Your task to perform on an android device: Go to CNN.com Image 0: 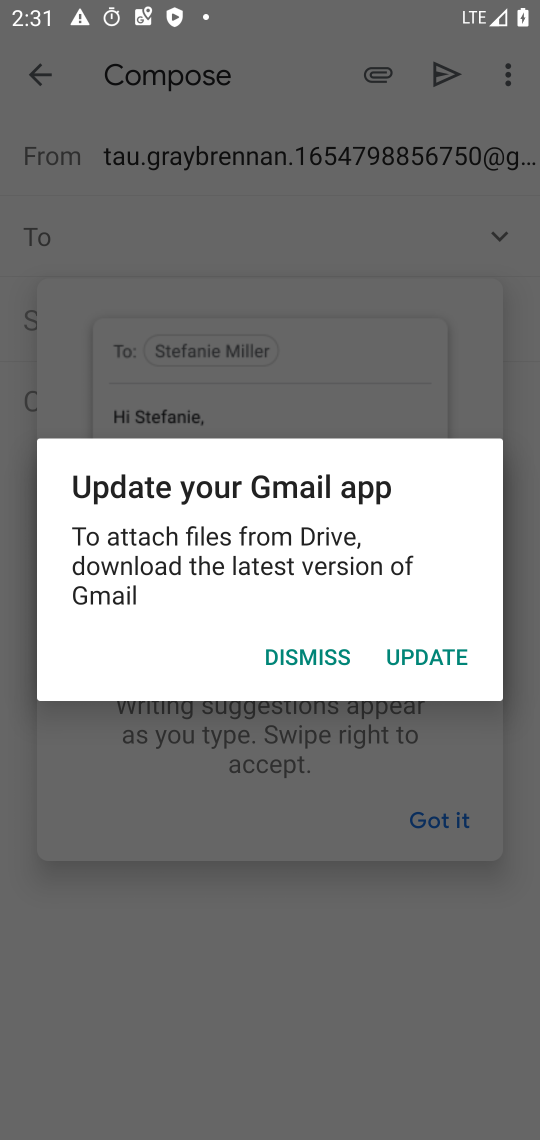
Step 0: press home button
Your task to perform on an android device: Go to CNN.com Image 1: 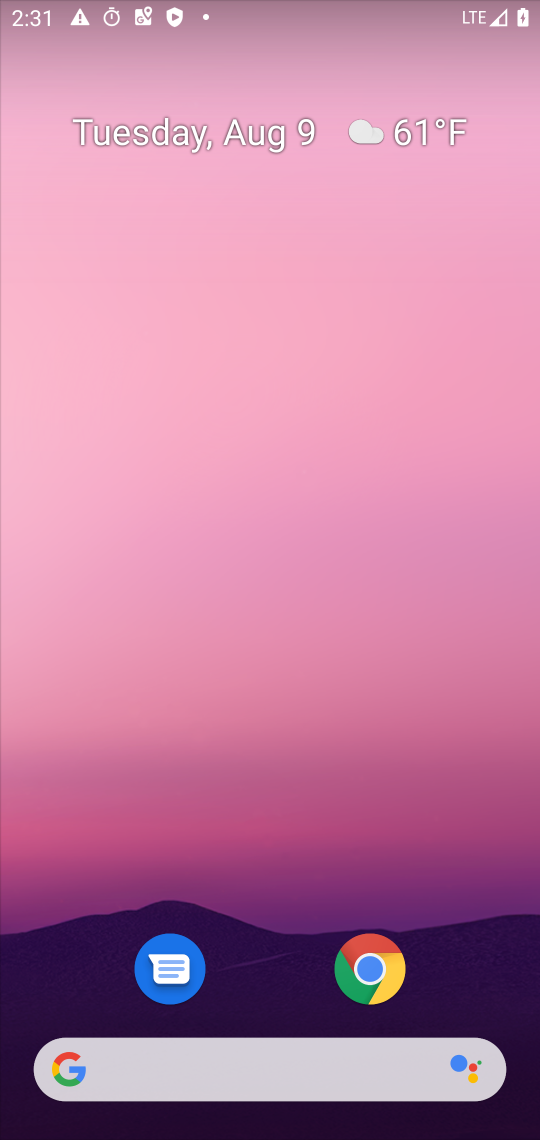
Step 1: drag from (247, 1096) to (191, 344)
Your task to perform on an android device: Go to CNN.com Image 2: 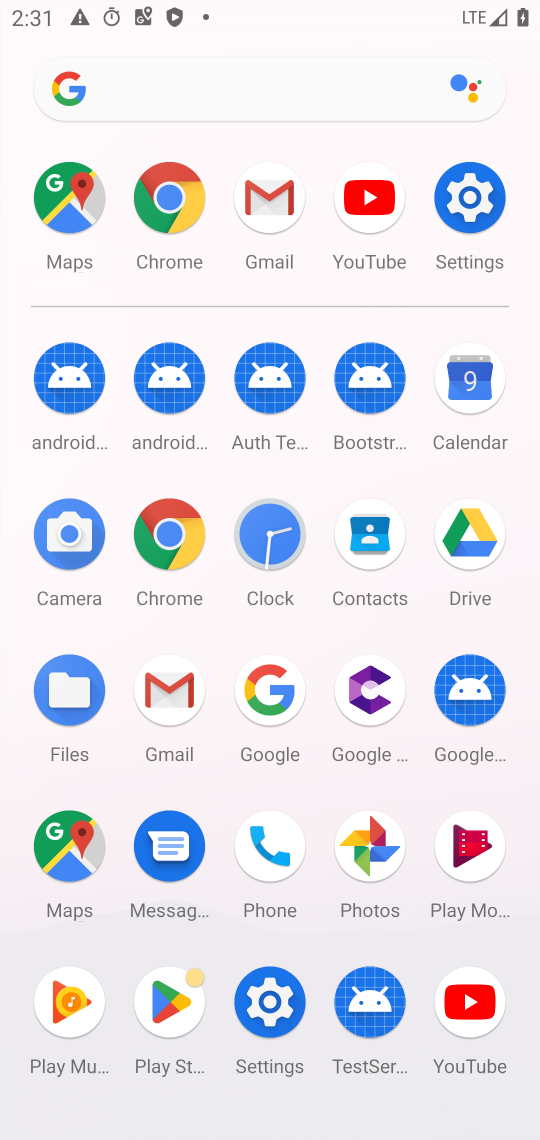
Step 2: click (169, 227)
Your task to perform on an android device: Go to CNN.com Image 3: 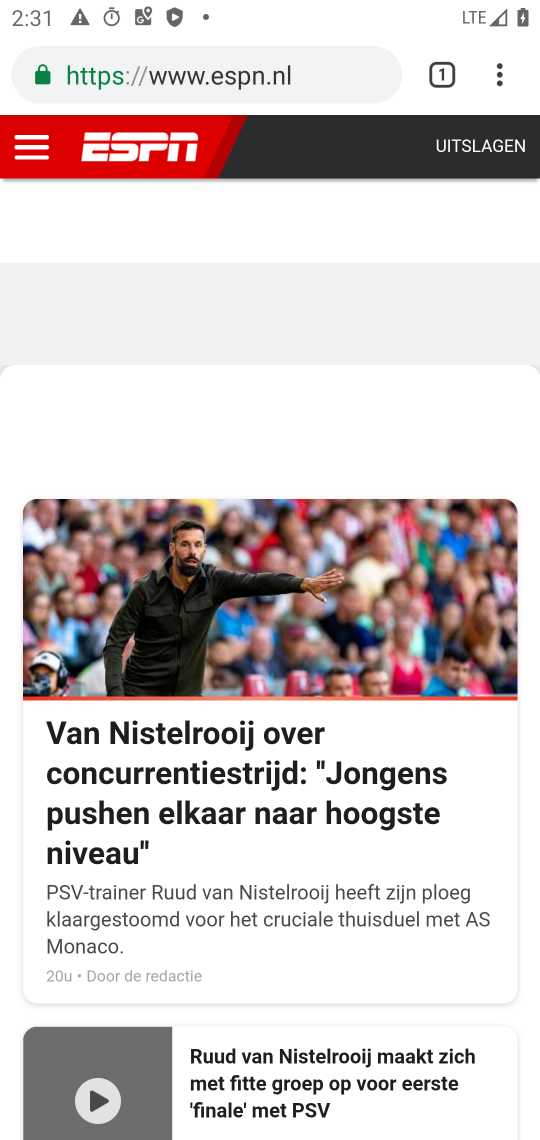
Step 3: click (248, 95)
Your task to perform on an android device: Go to CNN.com Image 4: 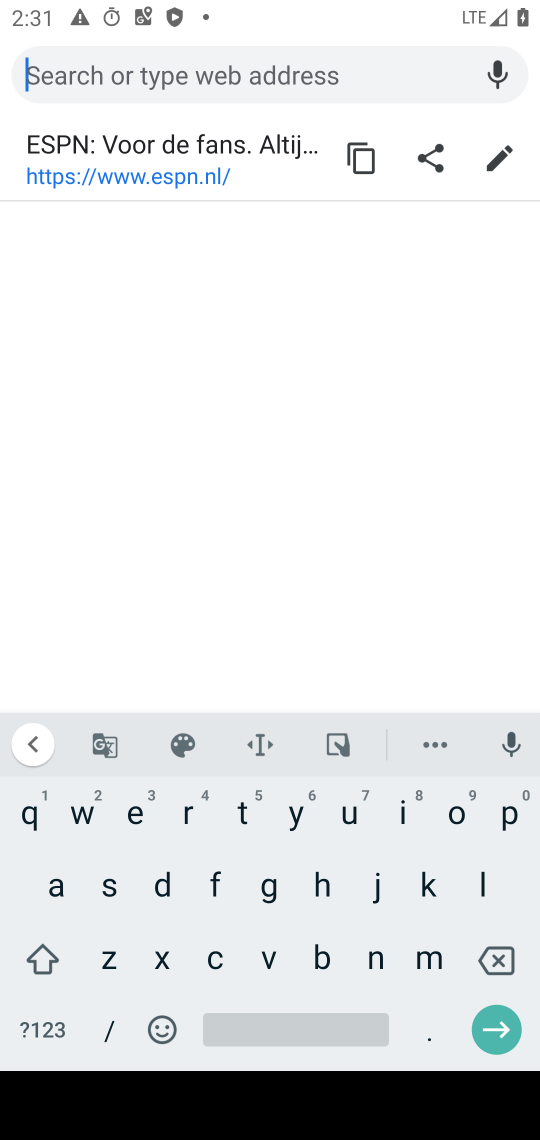
Step 4: click (216, 961)
Your task to perform on an android device: Go to CNN.com Image 5: 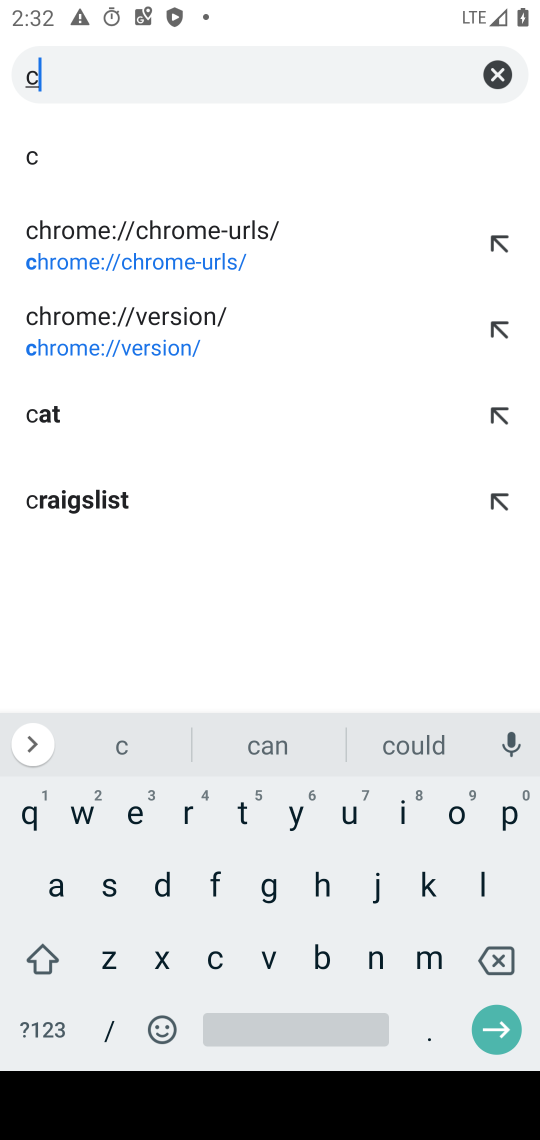
Step 5: click (376, 955)
Your task to perform on an android device: Go to CNN.com Image 6: 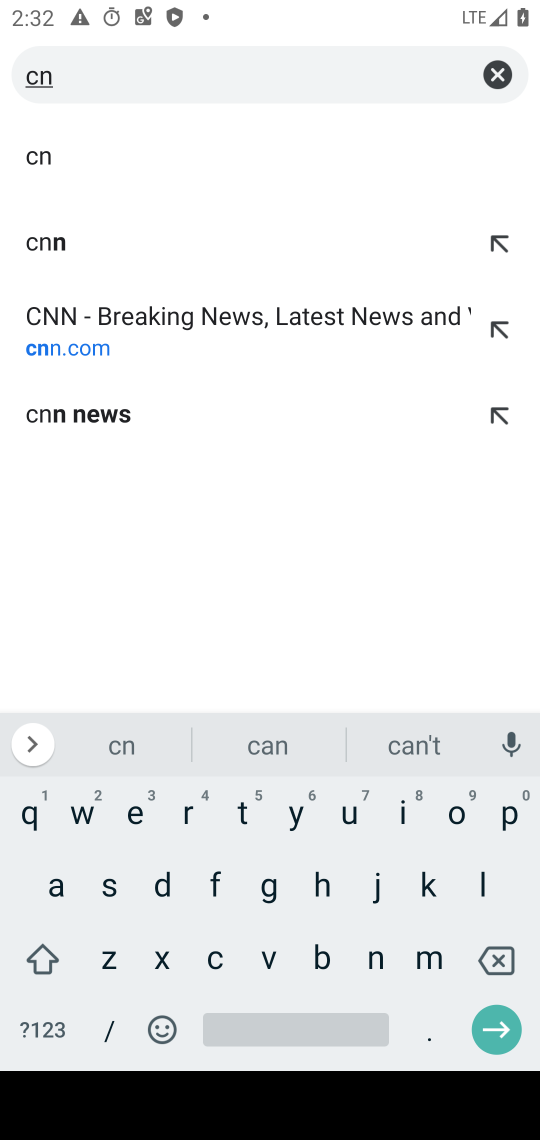
Step 6: click (378, 952)
Your task to perform on an android device: Go to CNN.com Image 7: 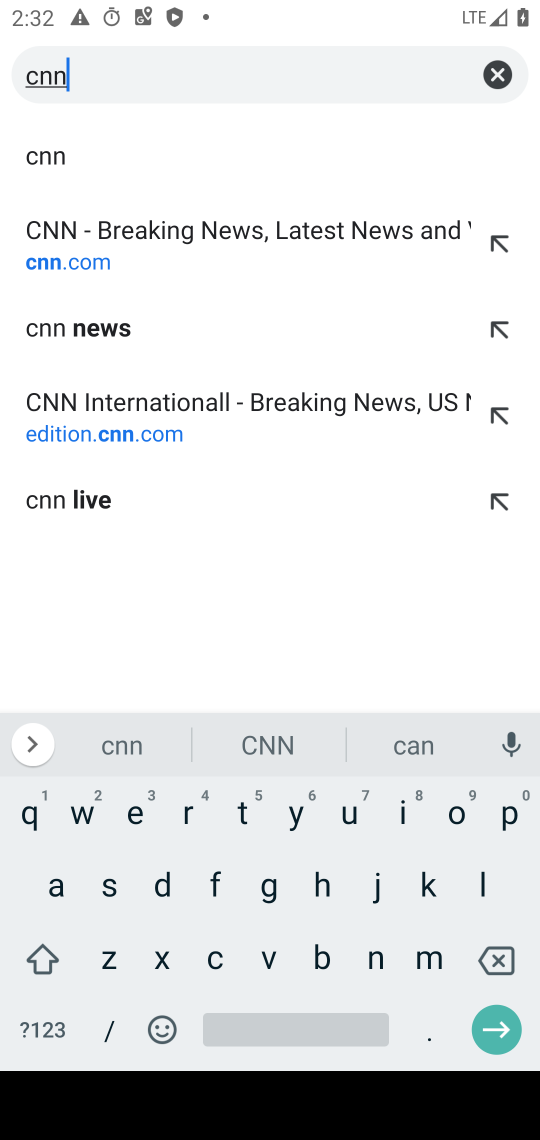
Step 7: click (504, 1036)
Your task to perform on an android device: Go to CNN.com Image 8: 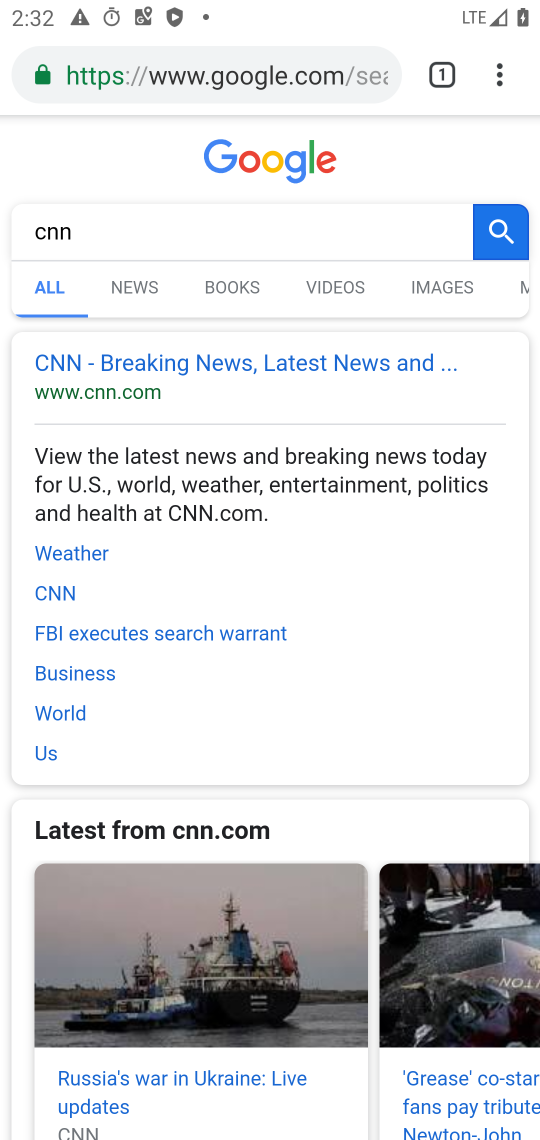
Step 8: click (113, 355)
Your task to perform on an android device: Go to CNN.com Image 9: 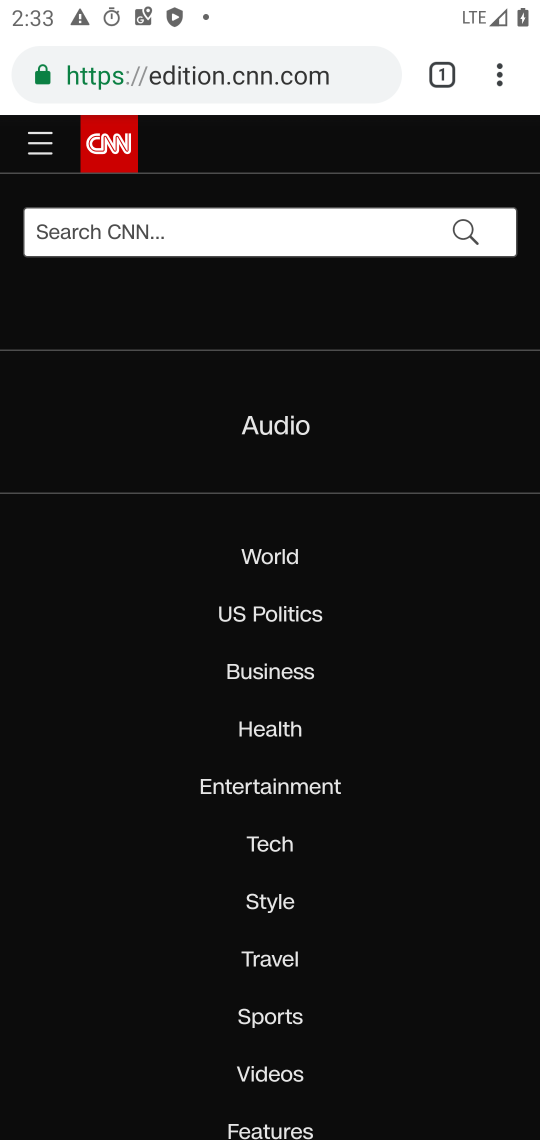
Step 9: task complete